Your task to perform on an android device: set an alarm Image 0: 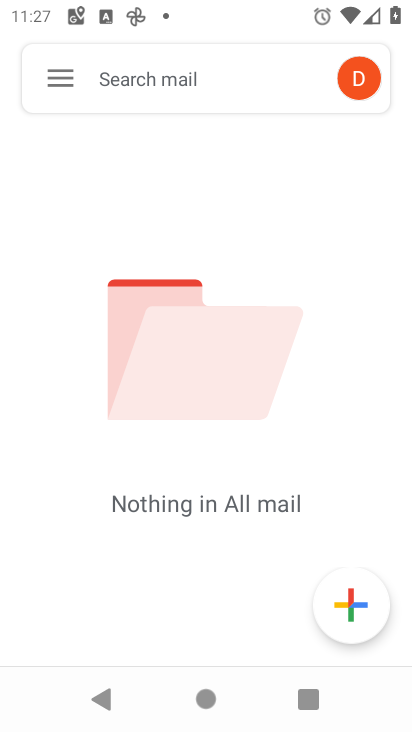
Step 0: press home button
Your task to perform on an android device: set an alarm Image 1: 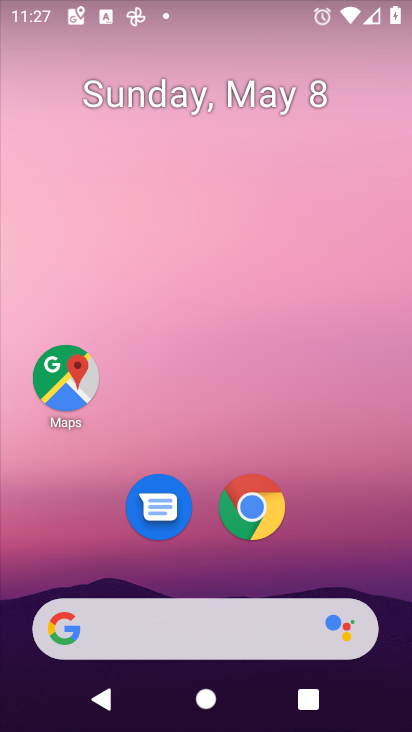
Step 1: drag from (259, 569) to (259, 77)
Your task to perform on an android device: set an alarm Image 2: 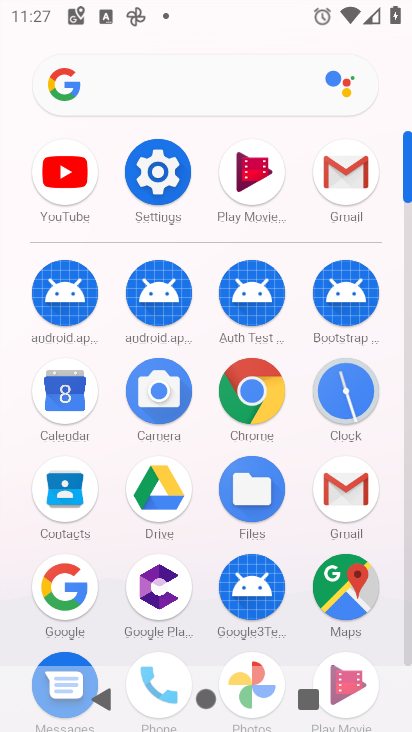
Step 2: click (330, 396)
Your task to perform on an android device: set an alarm Image 3: 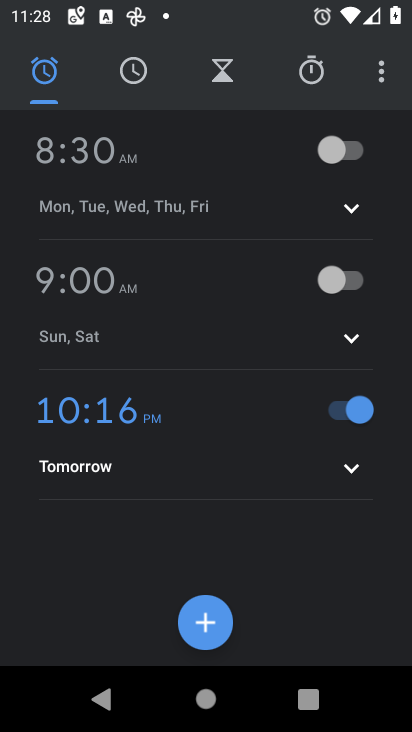
Step 3: click (206, 627)
Your task to perform on an android device: set an alarm Image 4: 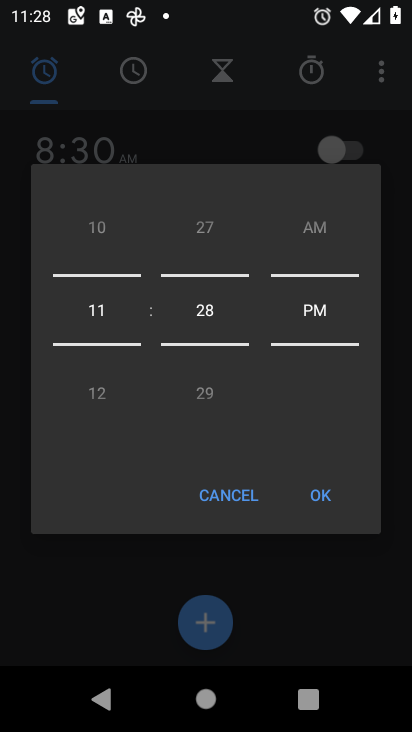
Step 4: click (206, 627)
Your task to perform on an android device: set an alarm Image 5: 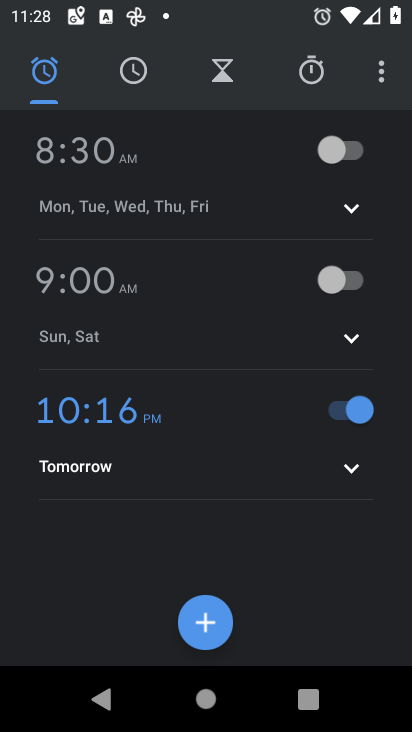
Step 5: click (204, 626)
Your task to perform on an android device: set an alarm Image 6: 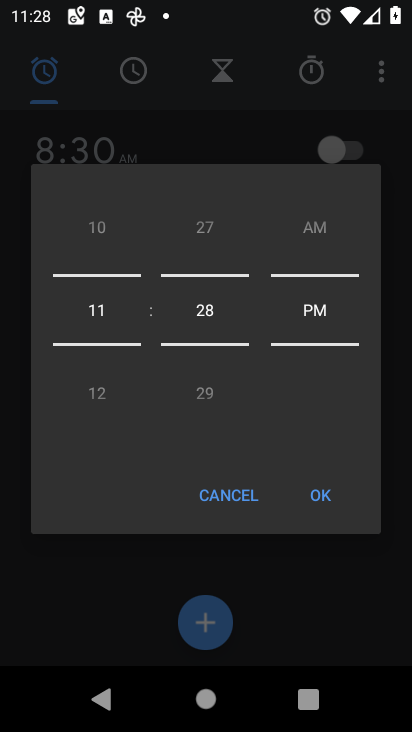
Step 6: click (327, 504)
Your task to perform on an android device: set an alarm Image 7: 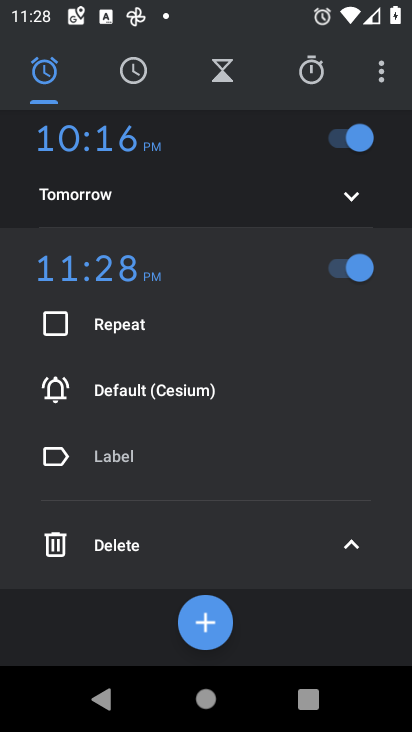
Step 7: task complete